Your task to perform on an android device: What's the weather? Image 0: 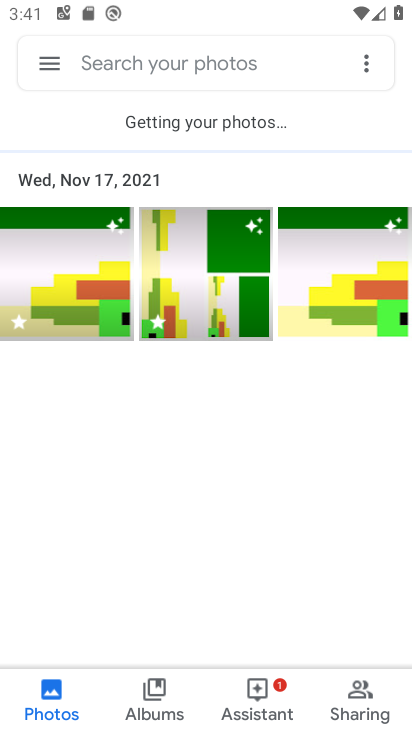
Step 0: press home button
Your task to perform on an android device: What's the weather? Image 1: 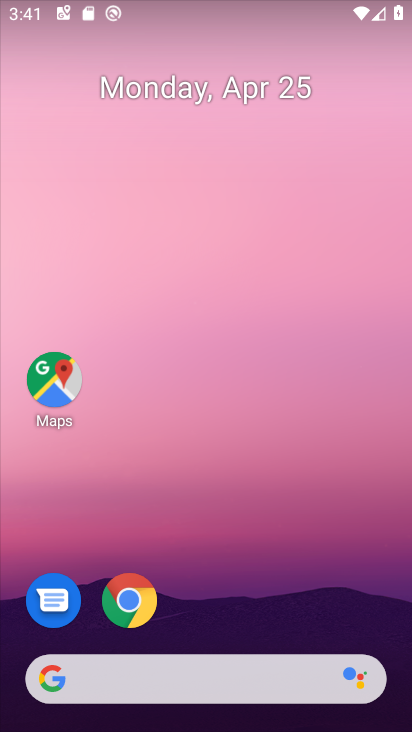
Step 1: click (208, 660)
Your task to perform on an android device: What's the weather? Image 2: 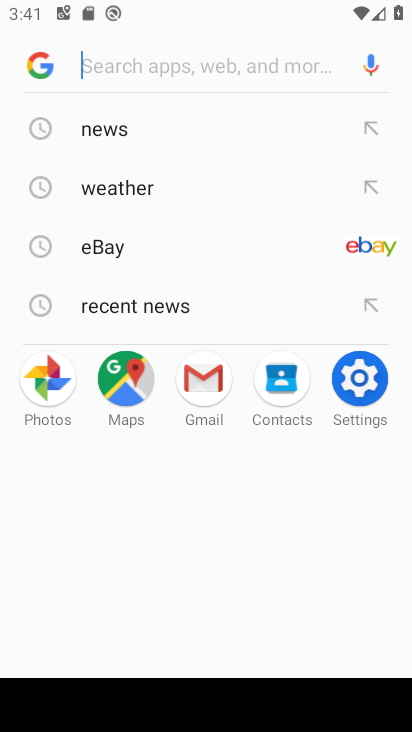
Step 2: click (132, 182)
Your task to perform on an android device: What's the weather? Image 3: 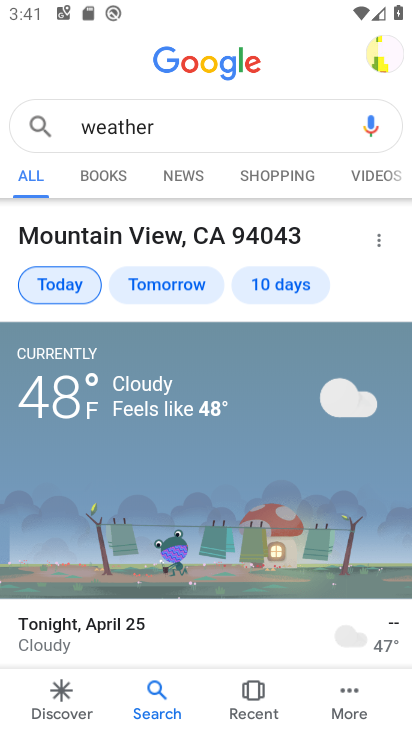
Step 3: task complete